Your task to perform on an android device: delete browsing data in the chrome app Image 0: 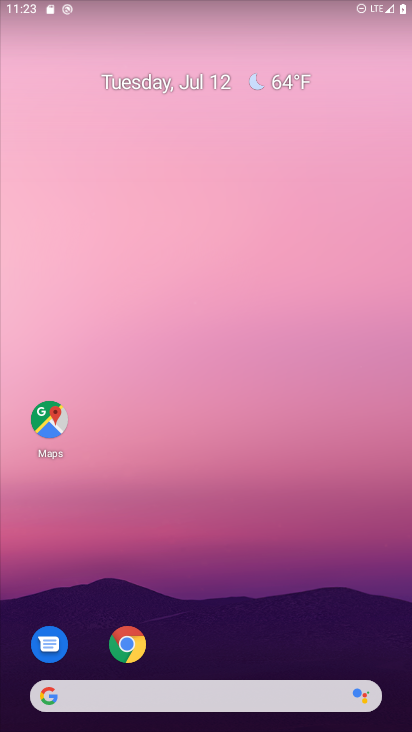
Step 0: click (133, 647)
Your task to perform on an android device: delete browsing data in the chrome app Image 1: 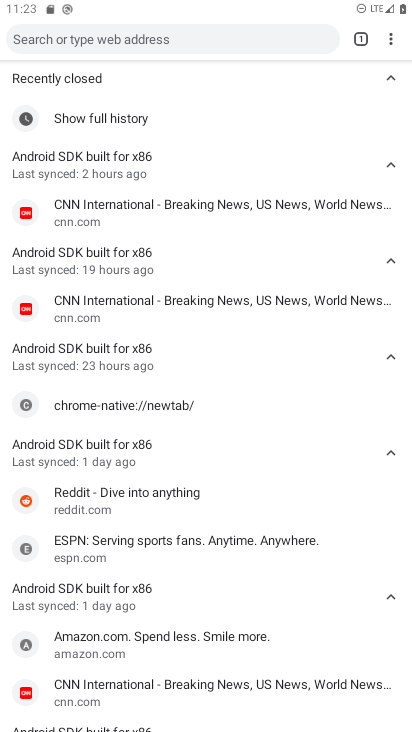
Step 1: click (395, 31)
Your task to perform on an android device: delete browsing data in the chrome app Image 2: 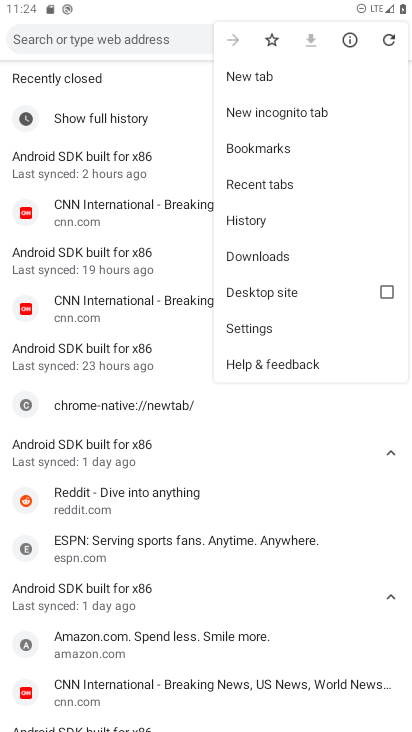
Step 2: click (267, 327)
Your task to perform on an android device: delete browsing data in the chrome app Image 3: 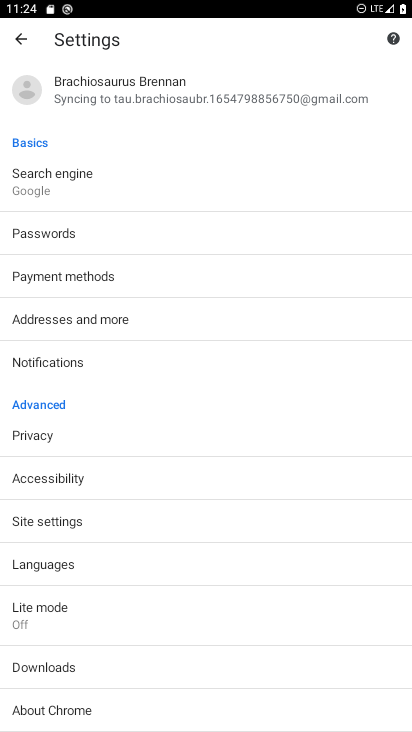
Step 3: task complete